Your task to perform on an android device: turn off smart reply in the gmail app Image 0: 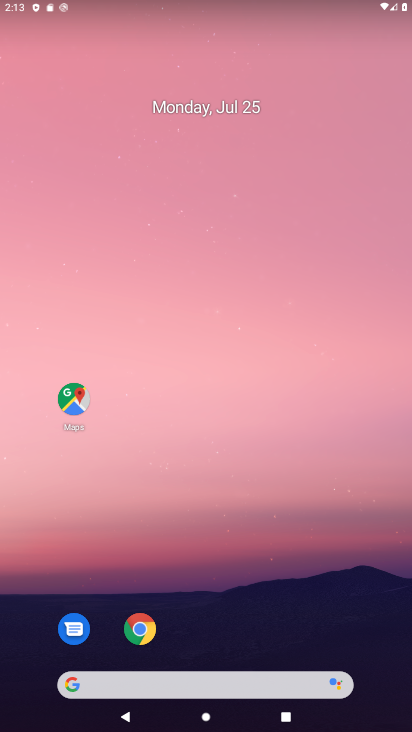
Step 0: drag from (303, 702) to (287, 118)
Your task to perform on an android device: turn off smart reply in the gmail app Image 1: 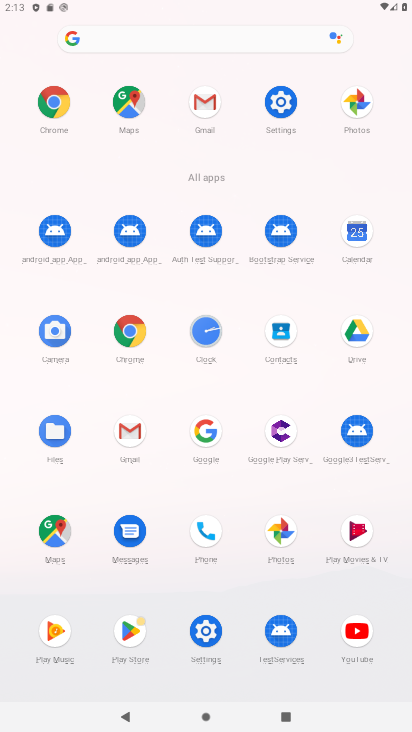
Step 1: click (133, 423)
Your task to perform on an android device: turn off smart reply in the gmail app Image 2: 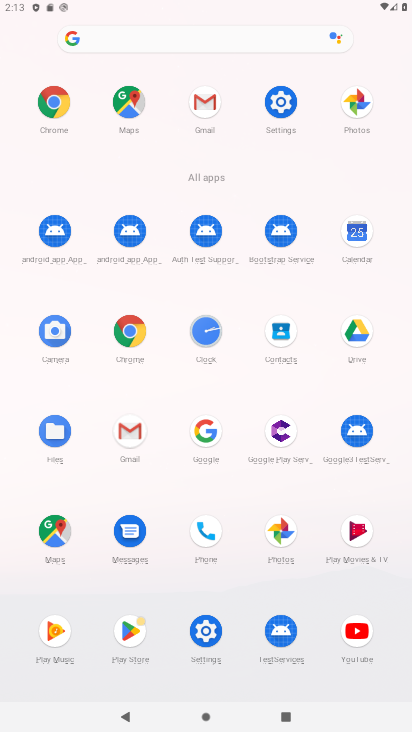
Step 2: click (132, 423)
Your task to perform on an android device: turn off smart reply in the gmail app Image 3: 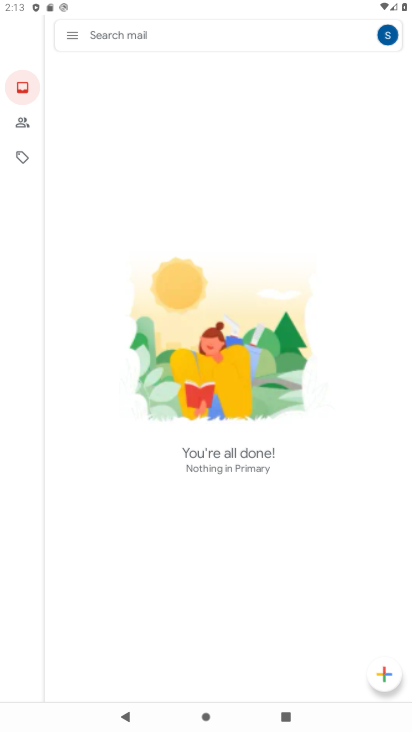
Step 3: click (131, 430)
Your task to perform on an android device: turn off smart reply in the gmail app Image 4: 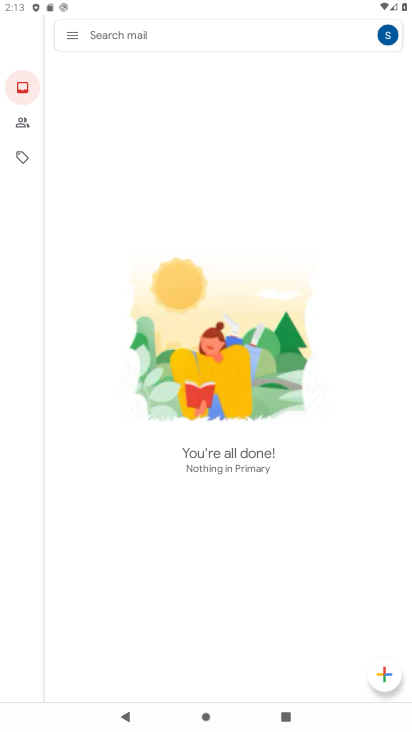
Step 4: click (62, 35)
Your task to perform on an android device: turn off smart reply in the gmail app Image 5: 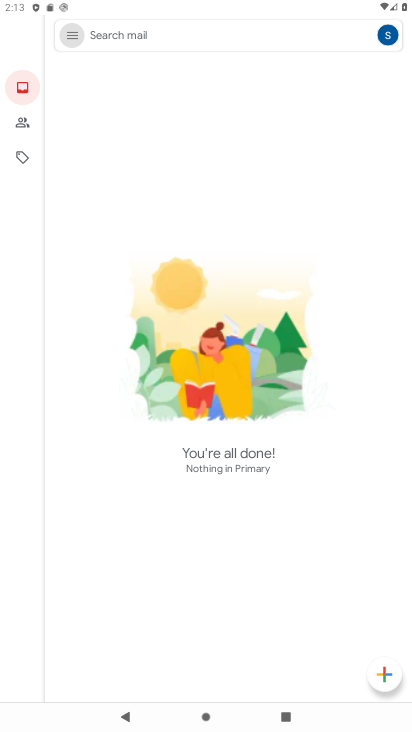
Step 5: click (68, 36)
Your task to perform on an android device: turn off smart reply in the gmail app Image 6: 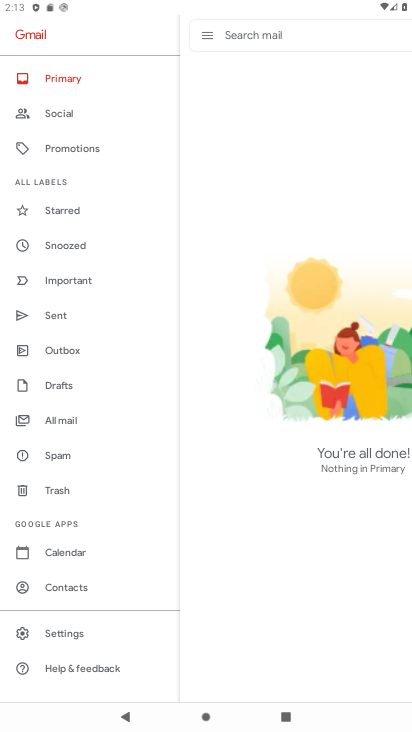
Step 6: click (68, 35)
Your task to perform on an android device: turn off smart reply in the gmail app Image 7: 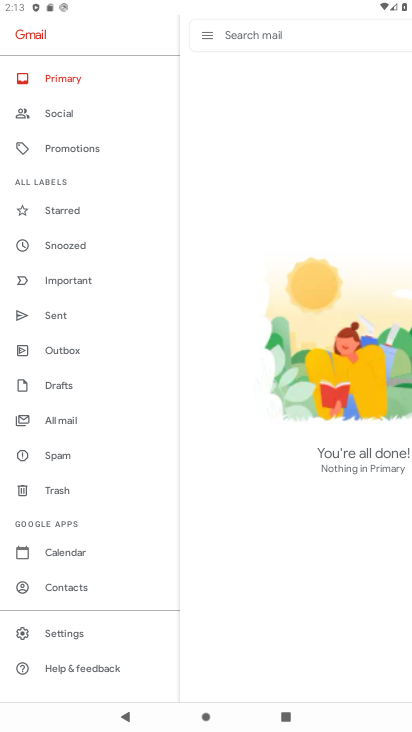
Step 7: click (73, 34)
Your task to perform on an android device: turn off smart reply in the gmail app Image 8: 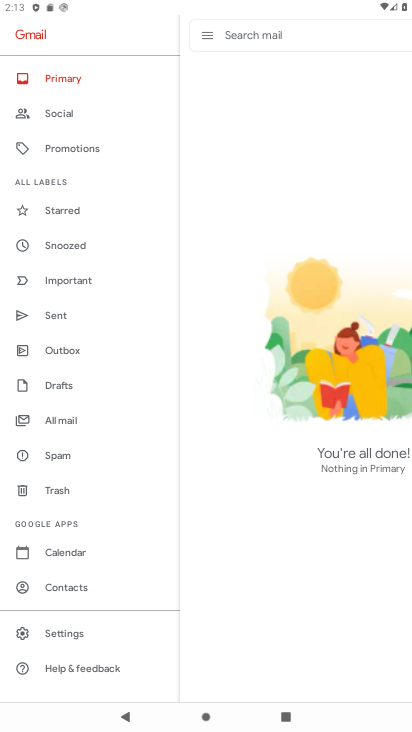
Step 8: click (65, 417)
Your task to perform on an android device: turn off smart reply in the gmail app Image 9: 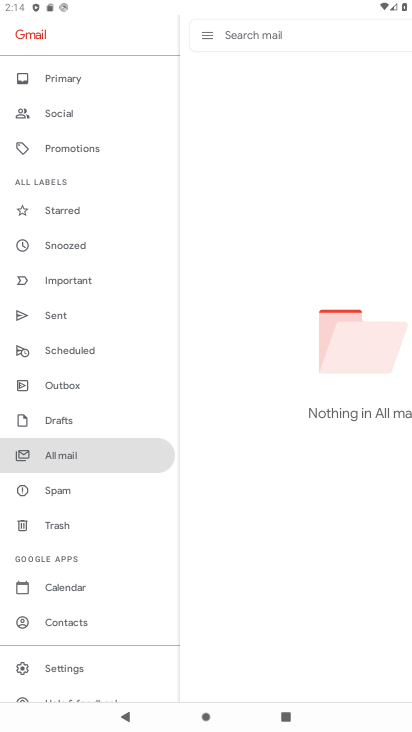
Step 9: click (69, 671)
Your task to perform on an android device: turn off smart reply in the gmail app Image 10: 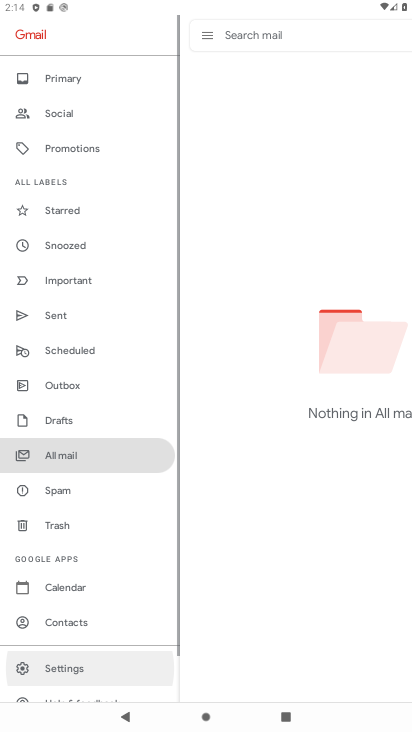
Step 10: click (69, 671)
Your task to perform on an android device: turn off smart reply in the gmail app Image 11: 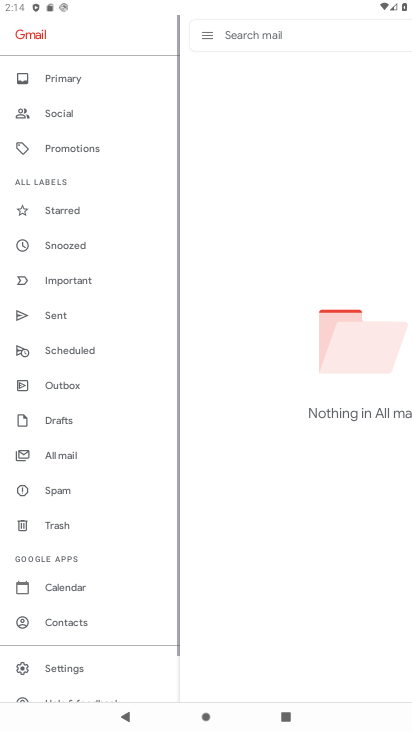
Step 11: click (69, 671)
Your task to perform on an android device: turn off smart reply in the gmail app Image 12: 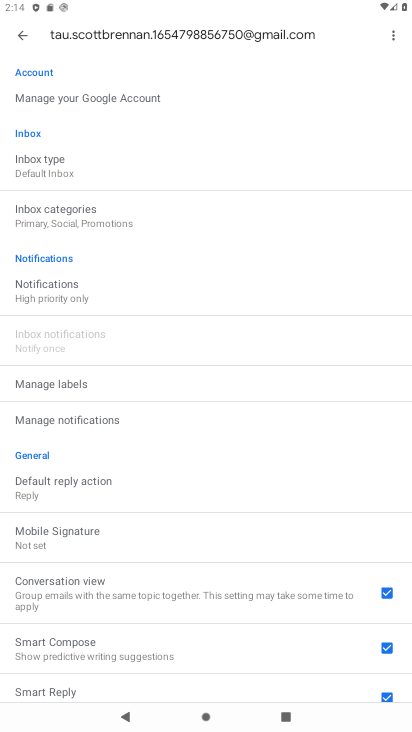
Step 12: click (90, 129)
Your task to perform on an android device: turn off smart reply in the gmail app Image 13: 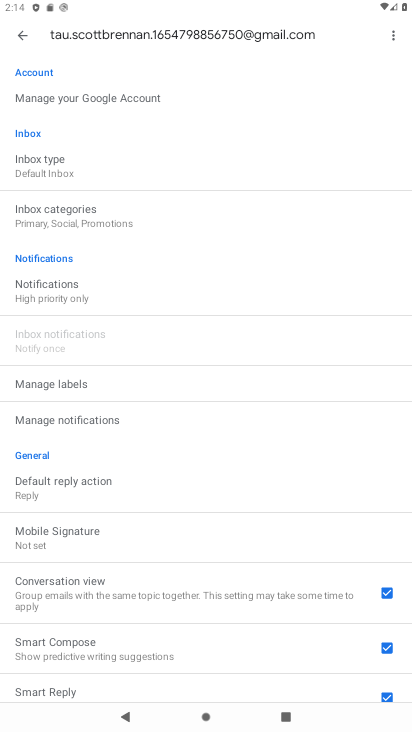
Step 13: drag from (141, 637) to (118, 255)
Your task to perform on an android device: turn off smart reply in the gmail app Image 14: 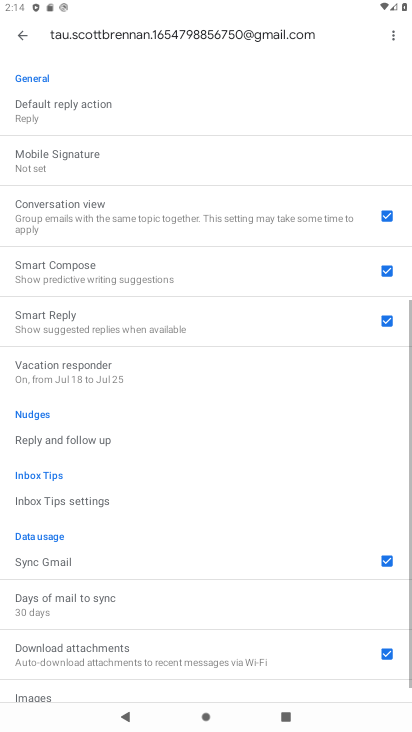
Step 14: drag from (119, 463) to (106, 159)
Your task to perform on an android device: turn off smart reply in the gmail app Image 15: 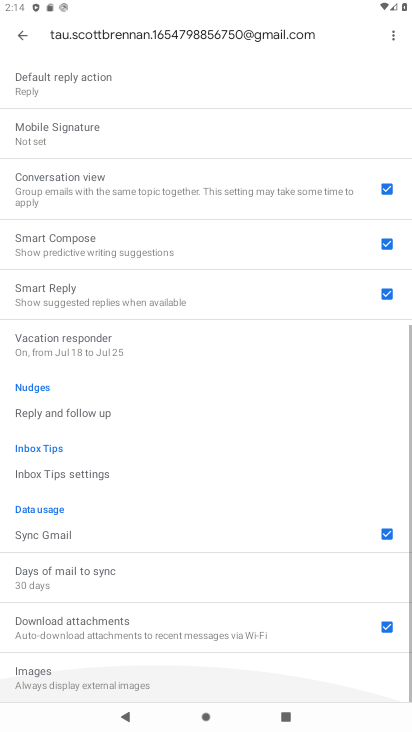
Step 15: click (105, 345)
Your task to perform on an android device: turn off smart reply in the gmail app Image 16: 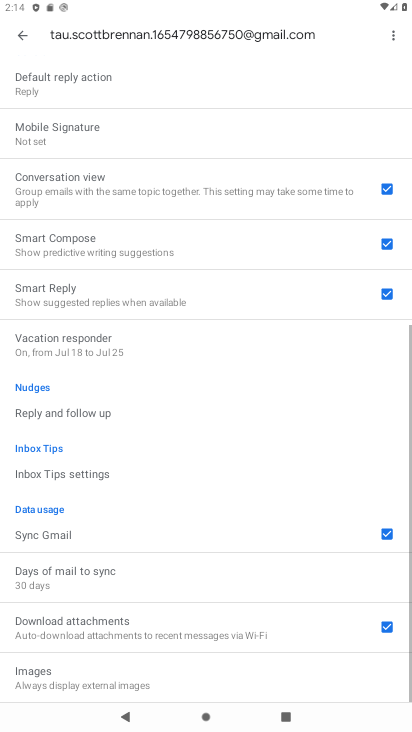
Step 16: drag from (118, 416) to (118, 110)
Your task to perform on an android device: turn off smart reply in the gmail app Image 17: 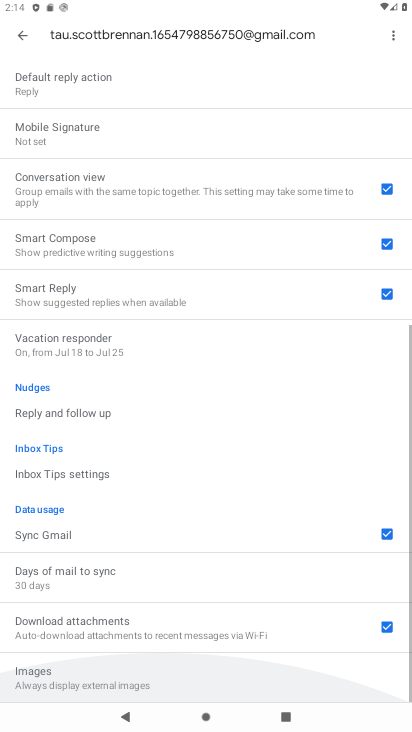
Step 17: drag from (125, 473) to (125, 161)
Your task to perform on an android device: turn off smart reply in the gmail app Image 18: 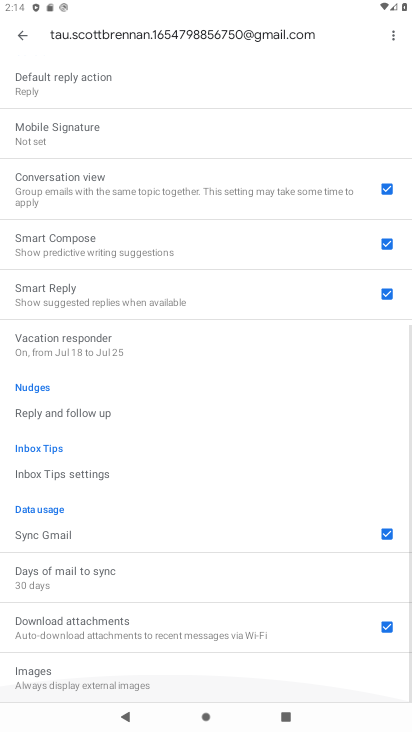
Step 18: drag from (143, 435) to (141, 211)
Your task to perform on an android device: turn off smart reply in the gmail app Image 19: 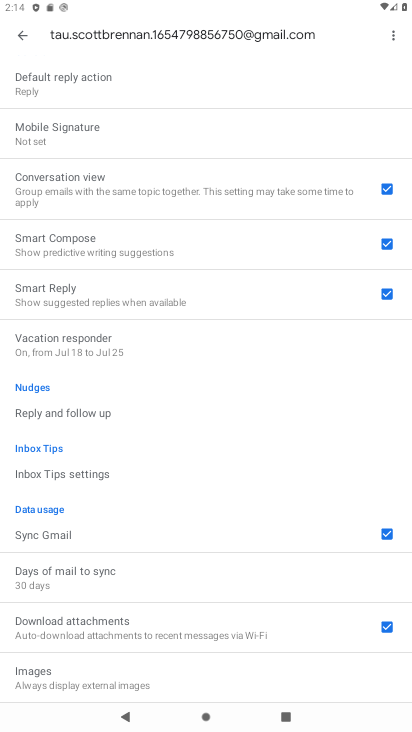
Step 19: click (394, 289)
Your task to perform on an android device: turn off smart reply in the gmail app Image 20: 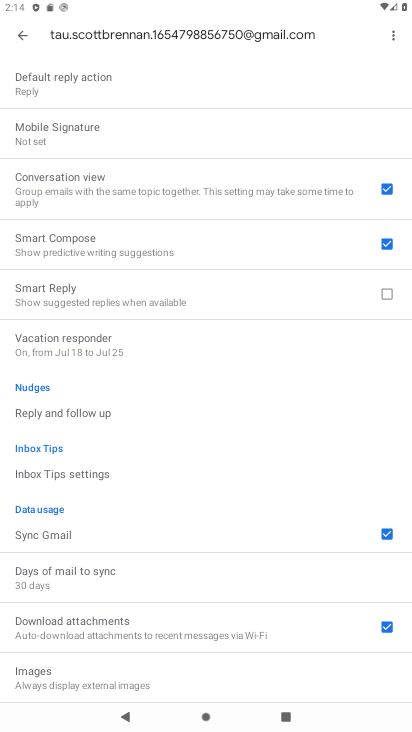
Step 20: task complete